Your task to perform on an android device: turn on improve location accuracy Image 0: 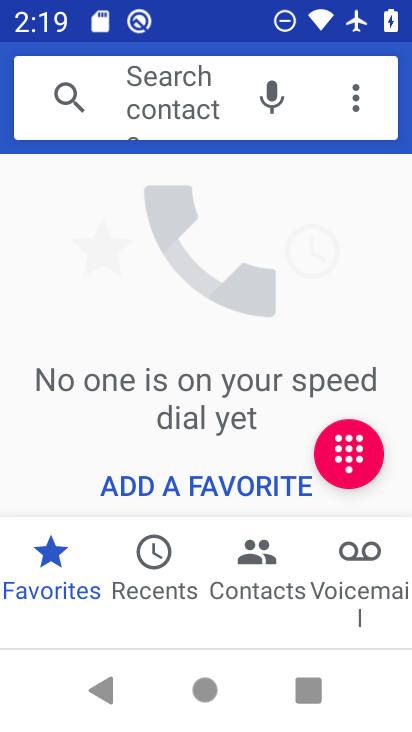
Step 0: press home button
Your task to perform on an android device: turn on improve location accuracy Image 1: 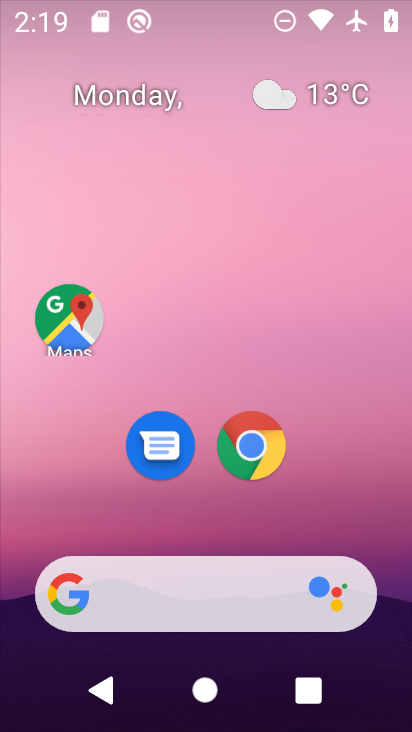
Step 1: drag from (392, 631) to (368, 100)
Your task to perform on an android device: turn on improve location accuracy Image 2: 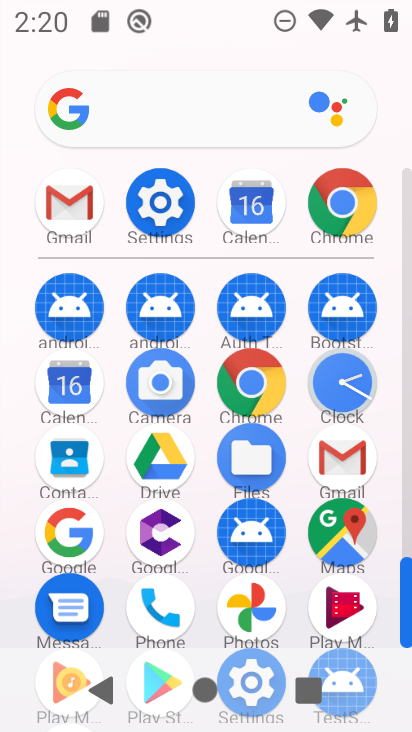
Step 2: click (180, 209)
Your task to perform on an android device: turn on improve location accuracy Image 3: 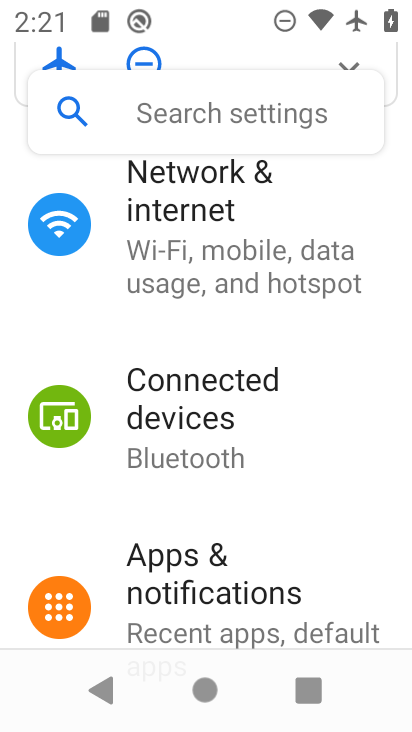
Step 3: drag from (112, 601) to (196, 162)
Your task to perform on an android device: turn on improve location accuracy Image 4: 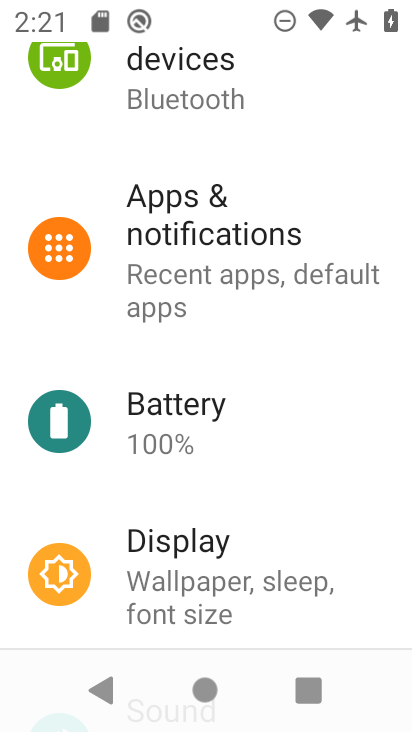
Step 4: drag from (121, 556) to (196, 182)
Your task to perform on an android device: turn on improve location accuracy Image 5: 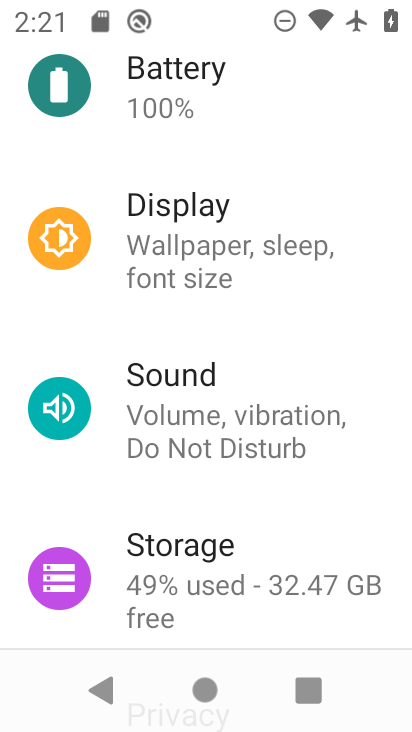
Step 5: drag from (146, 534) to (192, 215)
Your task to perform on an android device: turn on improve location accuracy Image 6: 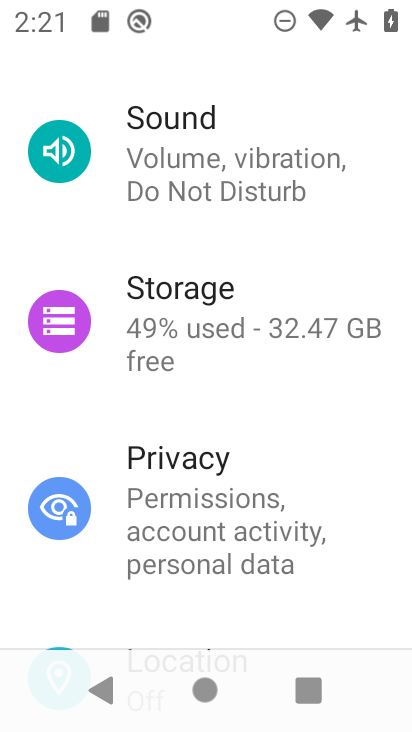
Step 6: drag from (159, 537) to (214, 182)
Your task to perform on an android device: turn on improve location accuracy Image 7: 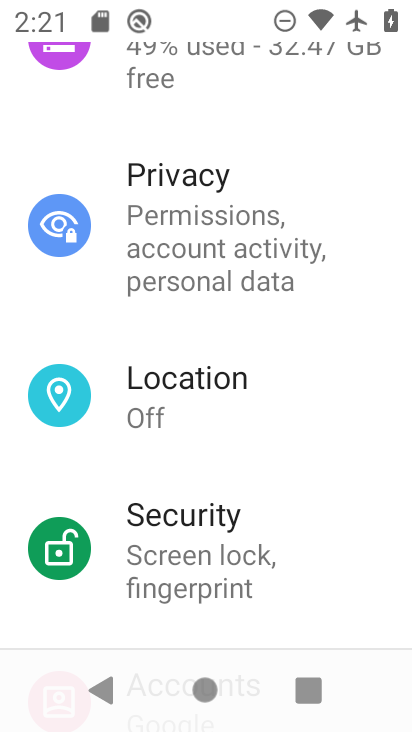
Step 7: click (245, 389)
Your task to perform on an android device: turn on improve location accuracy Image 8: 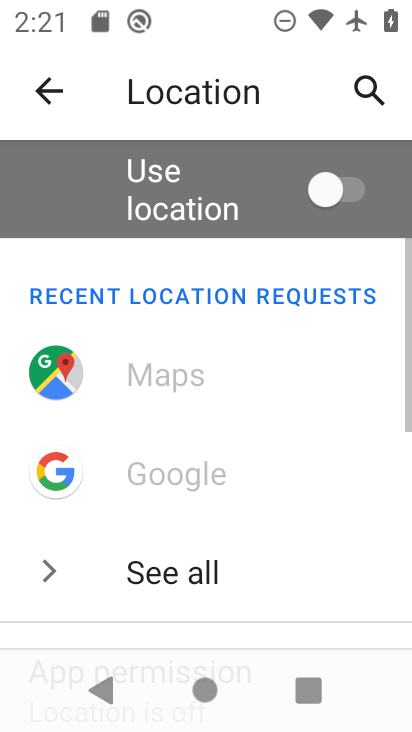
Step 8: drag from (162, 556) to (228, 66)
Your task to perform on an android device: turn on improve location accuracy Image 9: 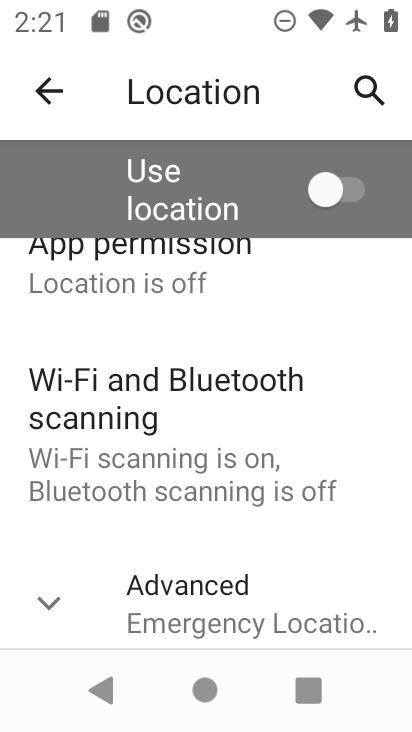
Step 9: click (49, 594)
Your task to perform on an android device: turn on improve location accuracy Image 10: 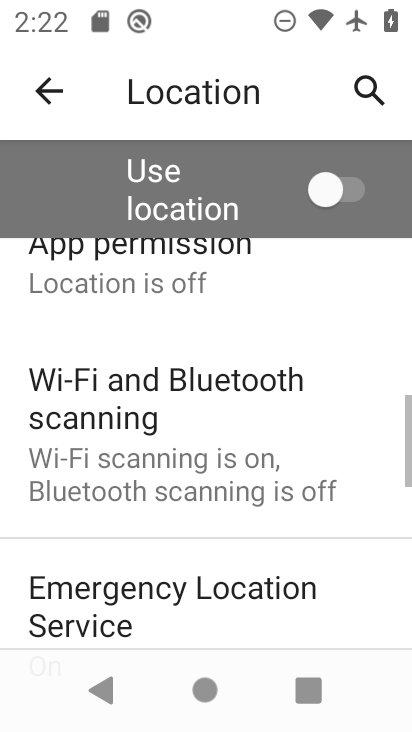
Step 10: drag from (113, 552) to (183, 164)
Your task to perform on an android device: turn on improve location accuracy Image 11: 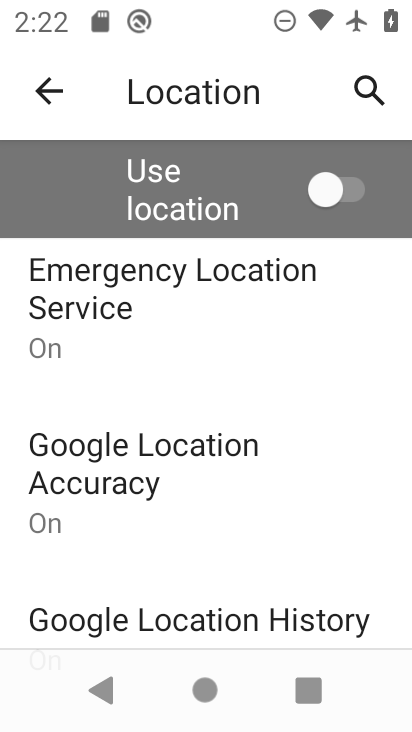
Step 11: click (139, 488)
Your task to perform on an android device: turn on improve location accuracy Image 12: 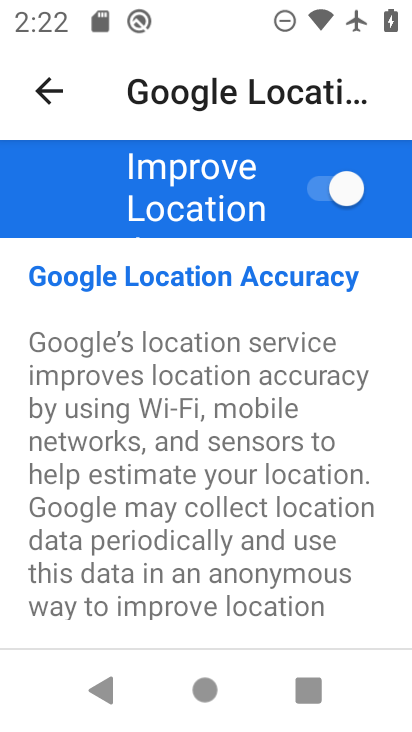
Step 12: task complete